Your task to perform on an android device: visit the assistant section in the google photos Image 0: 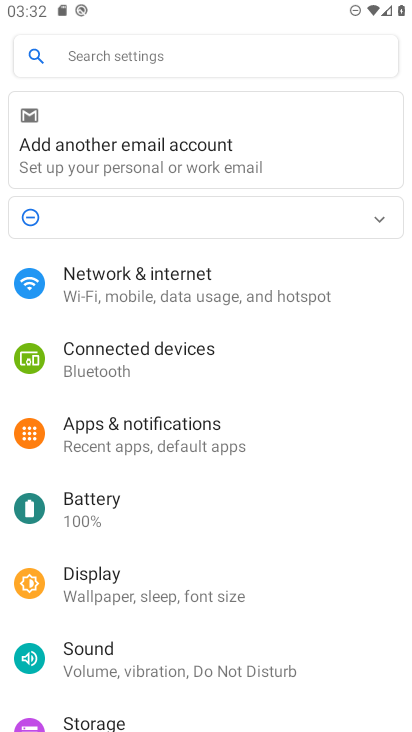
Step 0: press home button
Your task to perform on an android device: visit the assistant section in the google photos Image 1: 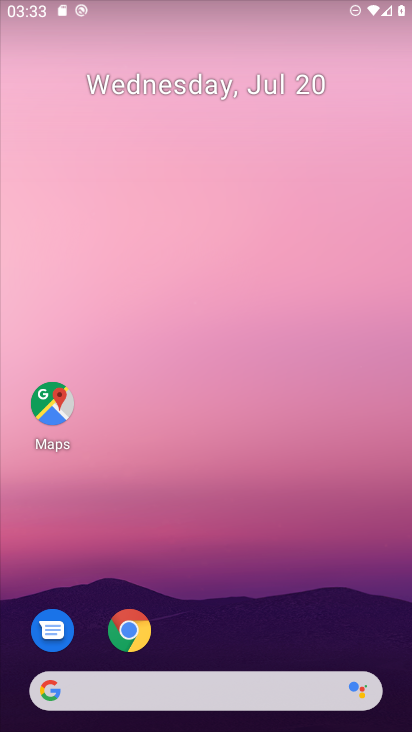
Step 1: drag from (368, 647) to (392, 87)
Your task to perform on an android device: visit the assistant section in the google photos Image 2: 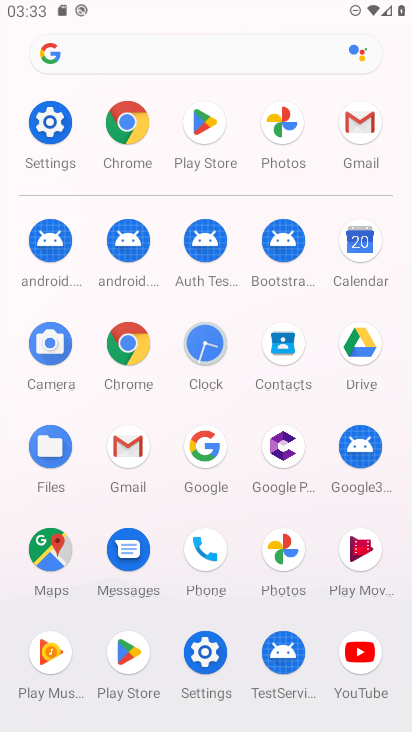
Step 2: click (297, 553)
Your task to perform on an android device: visit the assistant section in the google photos Image 3: 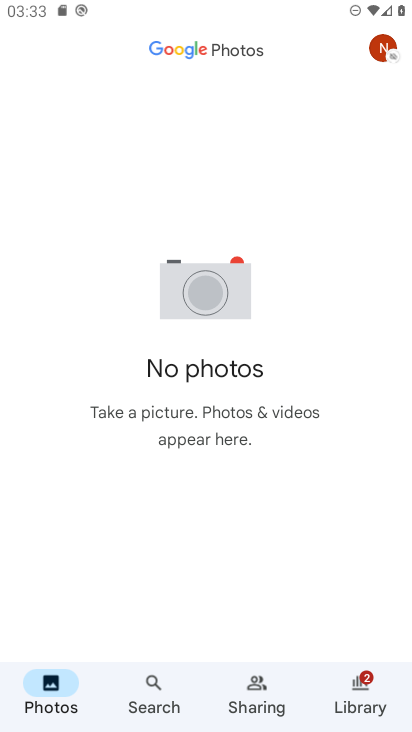
Step 3: click (360, 688)
Your task to perform on an android device: visit the assistant section in the google photos Image 4: 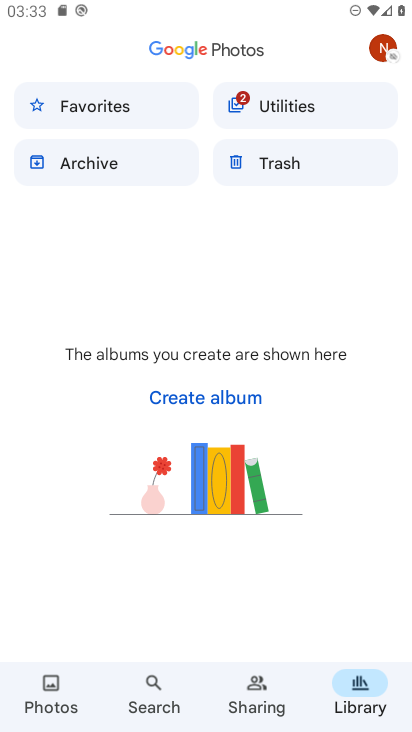
Step 4: task complete